Your task to perform on an android device: set an alarm Image 0: 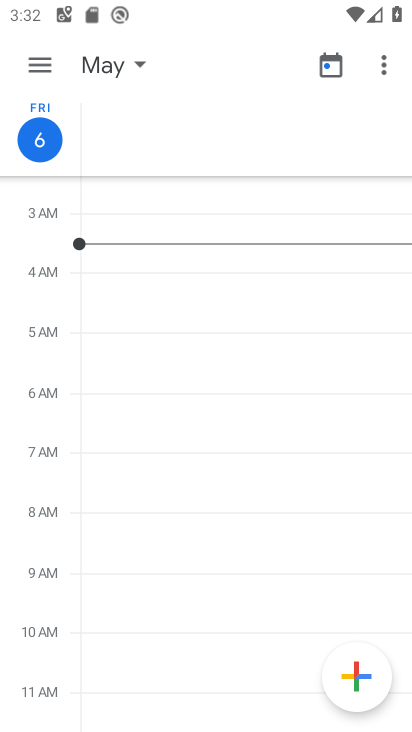
Step 0: press home button
Your task to perform on an android device: set an alarm Image 1: 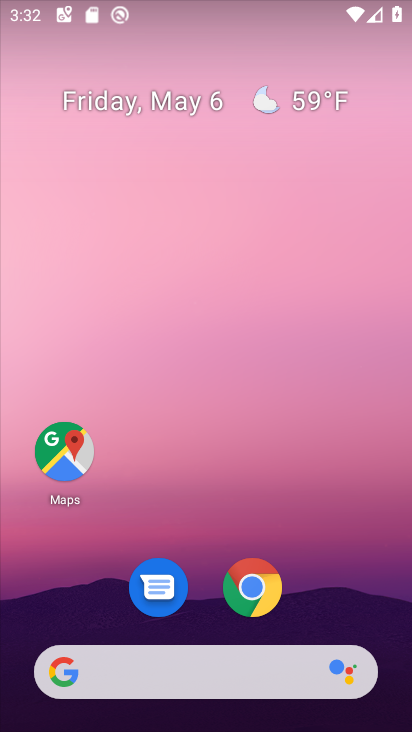
Step 1: drag from (202, 526) to (224, 38)
Your task to perform on an android device: set an alarm Image 2: 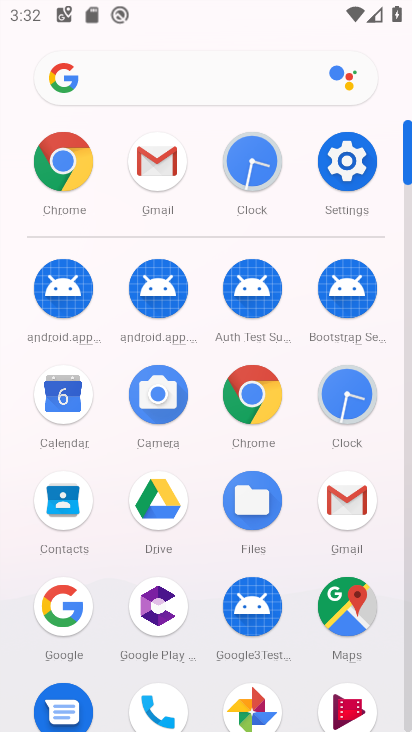
Step 2: click (238, 146)
Your task to perform on an android device: set an alarm Image 3: 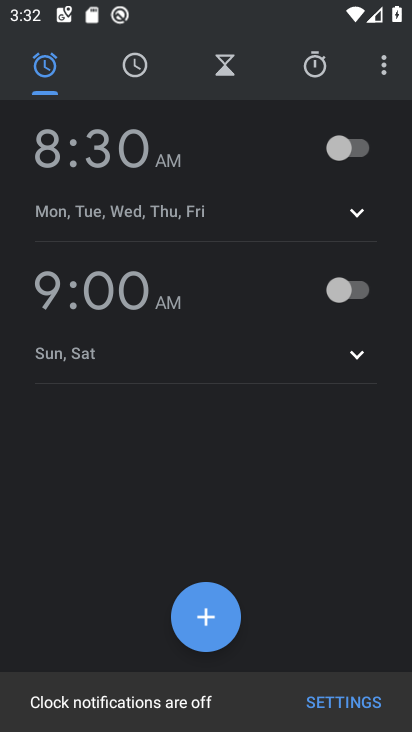
Step 3: click (201, 607)
Your task to perform on an android device: set an alarm Image 4: 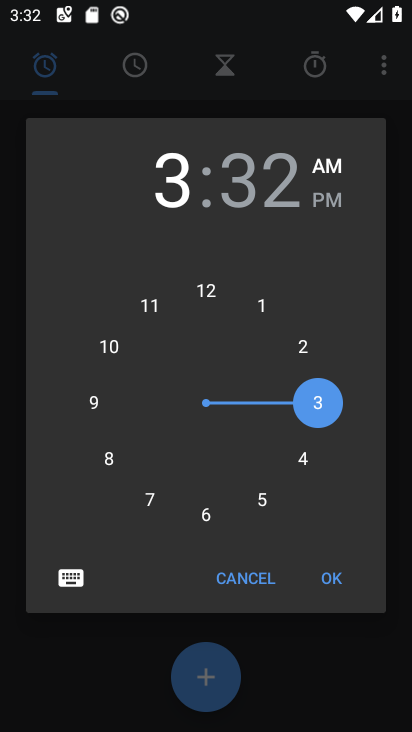
Step 4: click (283, 182)
Your task to perform on an android device: set an alarm Image 5: 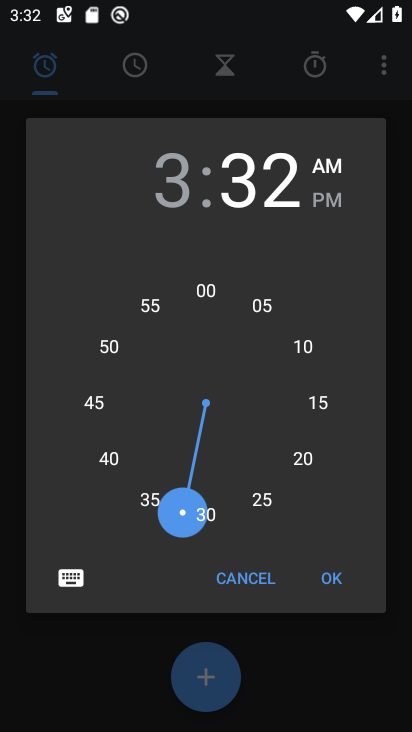
Step 5: click (207, 281)
Your task to perform on an android device: set an alarm Image 6: 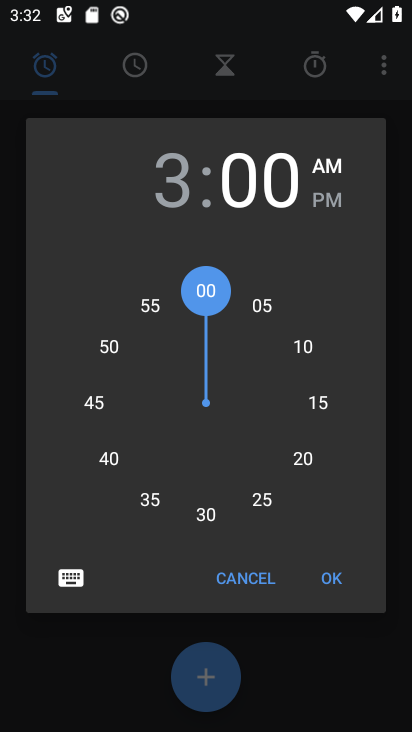
Step 6: click (322, 190)
Your task to perform on an android device: set an alarm Image 7: 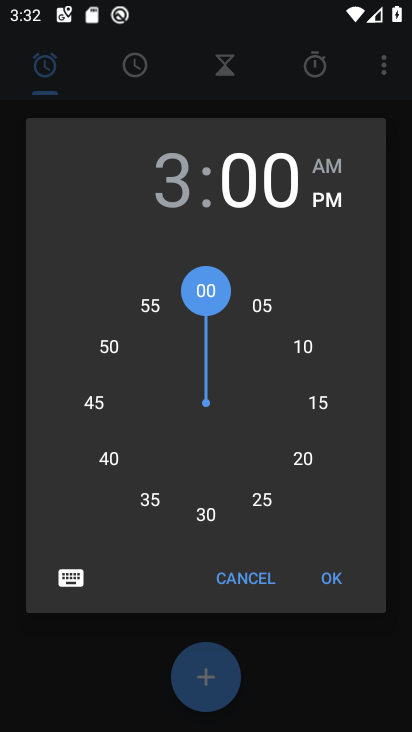
Step 7: click (325, 577)
Your task to perform on an android device: set an alarm Image 8: 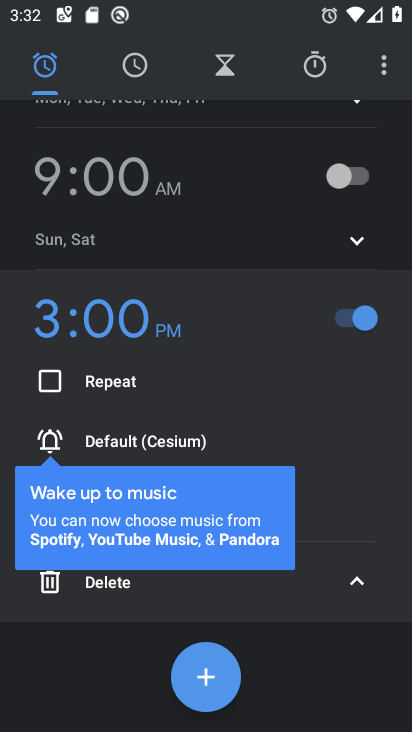
Step 8: task complete